Your task to perform on an android device: open app "Cash App" (install if not already installed) Image 0: 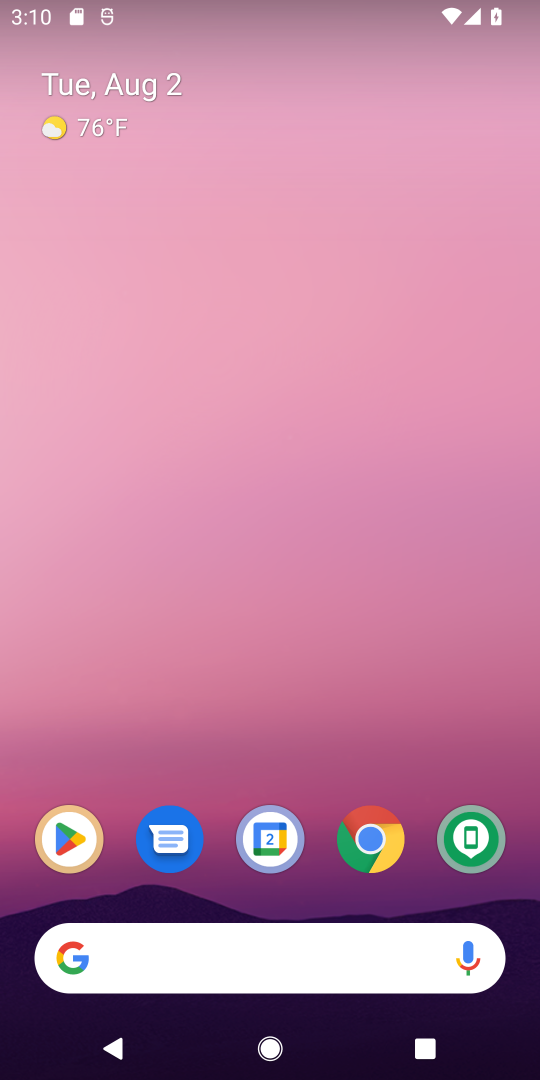
Step 0: click (45, 841)
Your task to perform on an android device: open app "Cash App" (install if not already installed) Image 1: 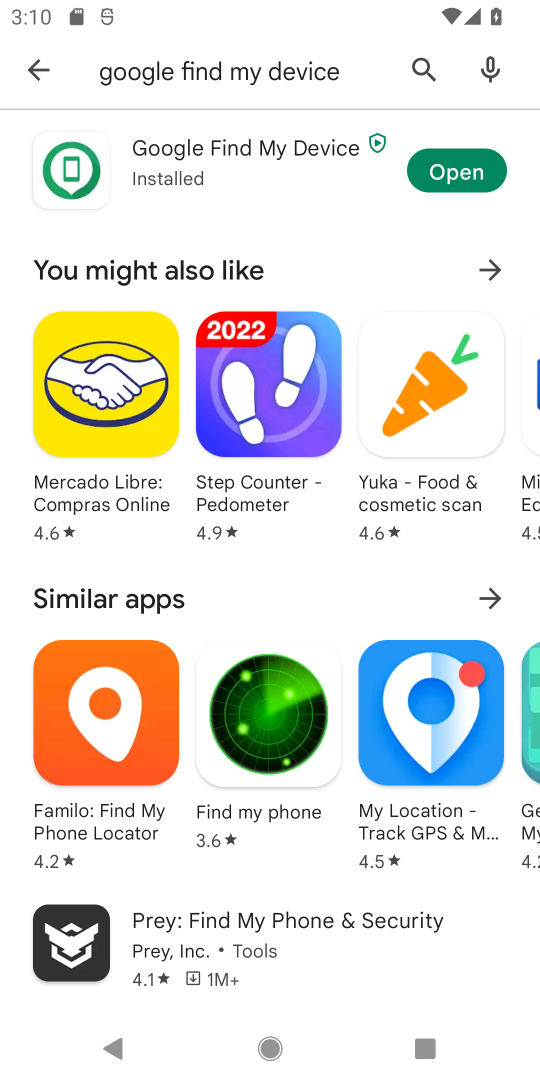
Step 1: click (428, 77)
Your task to perform on an android device: open app "Cash App" (install if not already installed) Image 2: 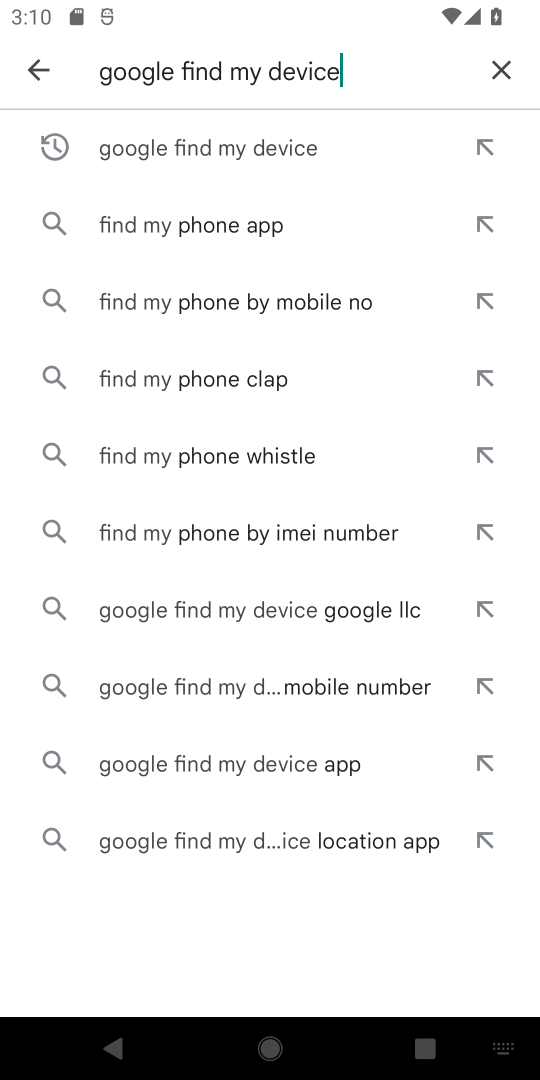
Step 2: click (488, 74)
Your task to perform on an android device: open app "Cash App" (install if not already installed) Image 3: 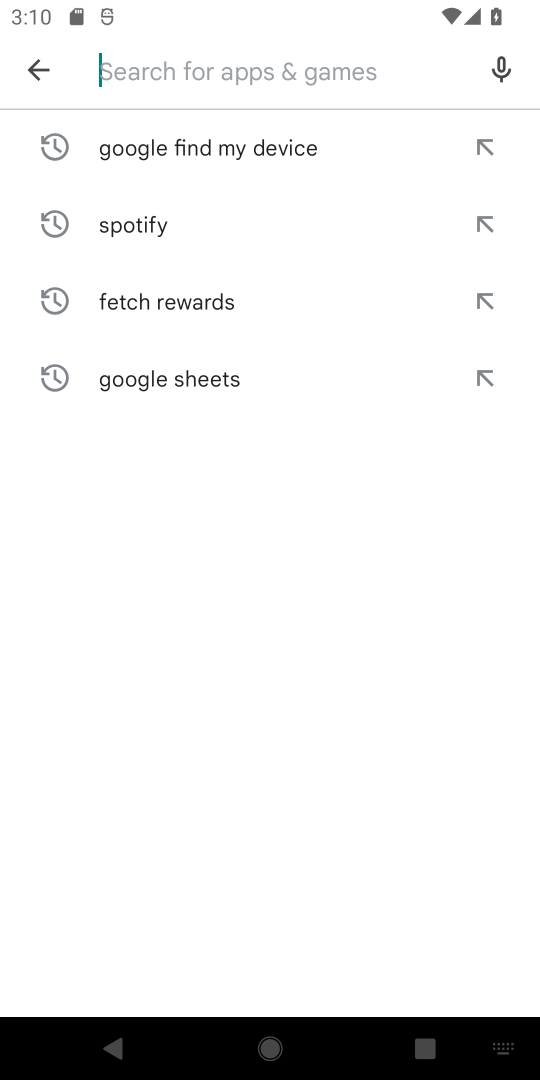
Step 3: type "cash app"
Your task to perform on an android device: open app "Cash App" (install if not already installed) Image 4: 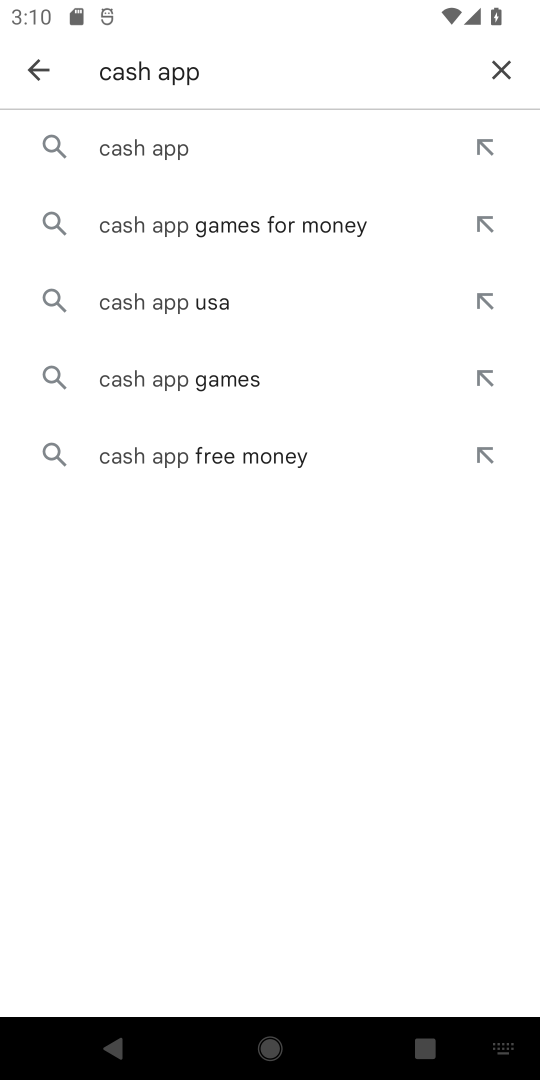
Step 4: click (266, 143)
Your task to perform on an android device: open app "Cash App" (install if not already installed) Image 5: 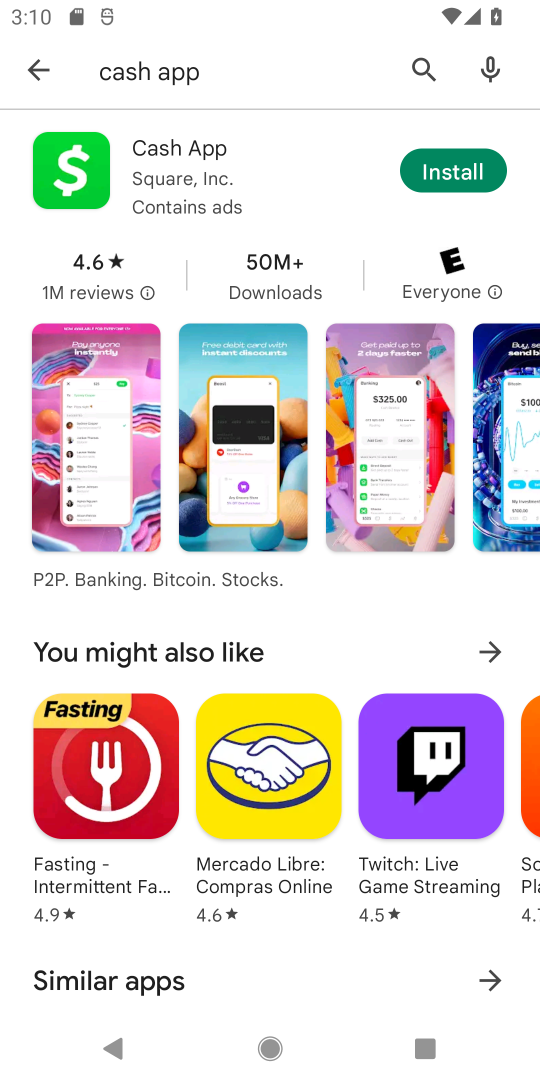
Step 5: click (439, 176)
Your task to perform on an android device: open app "Cash App" (install if not already installed) Image 6: 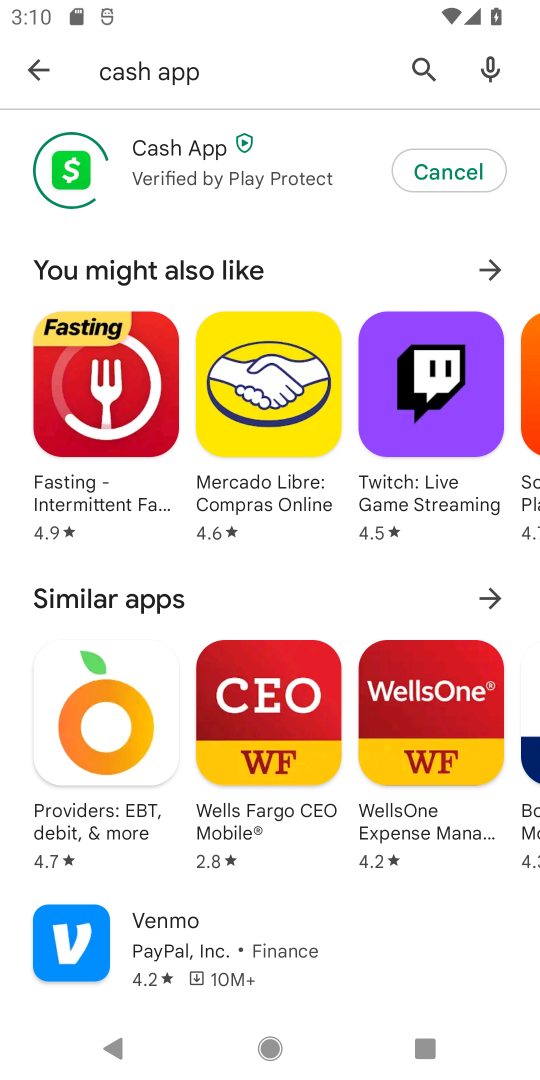
Step 6: task complete